Your task to perform on an android device: turn on data saver in the chrome app Image 0: 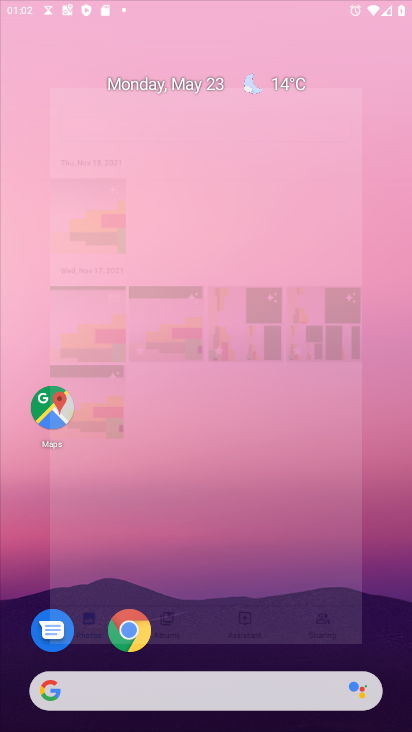
Step 0: drag from (270, 616) to (254, 81)
Your task to perform on an android device: turn on data saver in the chrome app Image 1: 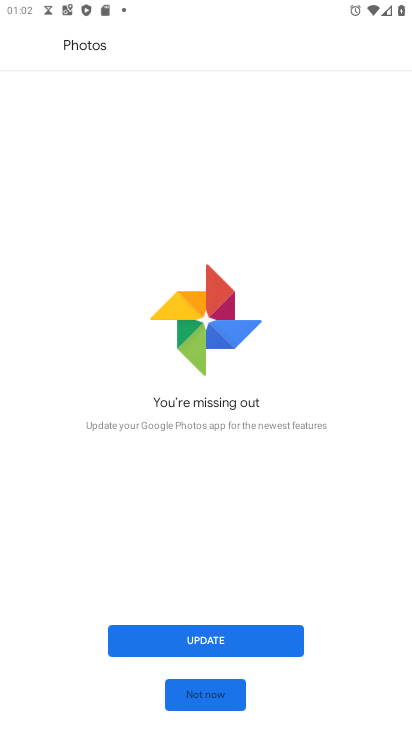
Step 1: press home button
Your task to perform on an android device: turn on data saver in the chrome app Image 2: 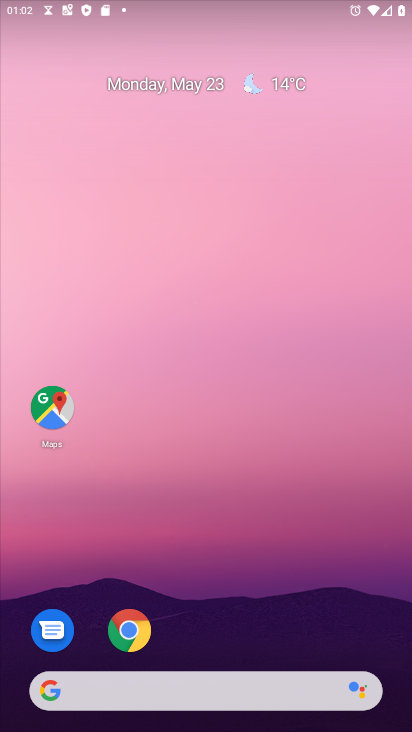
Step 2: click (142, 633)
Your task to perform on an android device: turn on data saver in the chrome app Image 3: 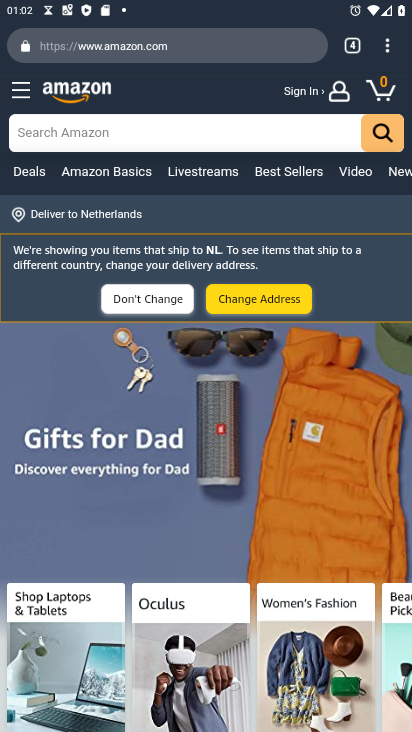
Step 3: click (386, 54)
Your task to perform on an android device: turn on data saver in the chrome app Image 4: 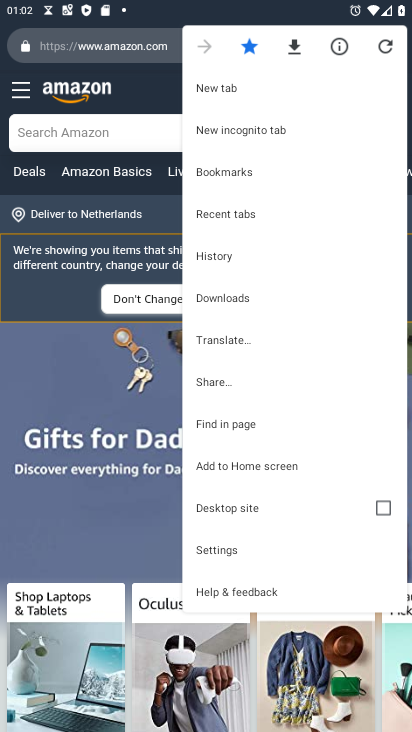
Step 4: click (236, 555)
Your task to perform on an android device: turn on data saver in the chrome app Image 5: 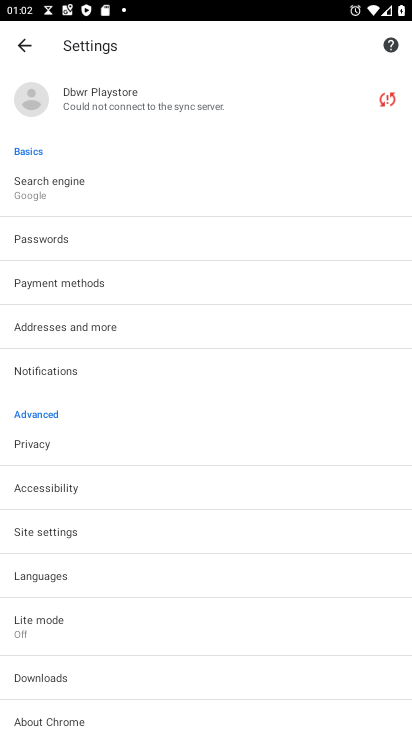
Step 5: click (103, 616)
Your task to perform on an android device: turn on data saver in the chrome app Image 6: 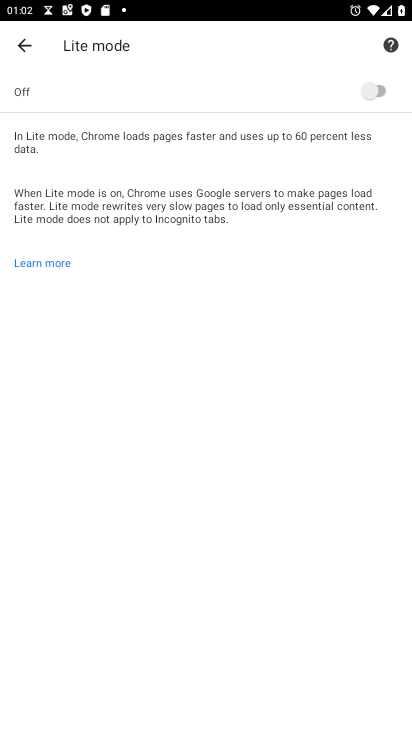
Step 6: click (384, 97)
Your task to perform on an android device: turn on data saver in the chrome app Image 7: 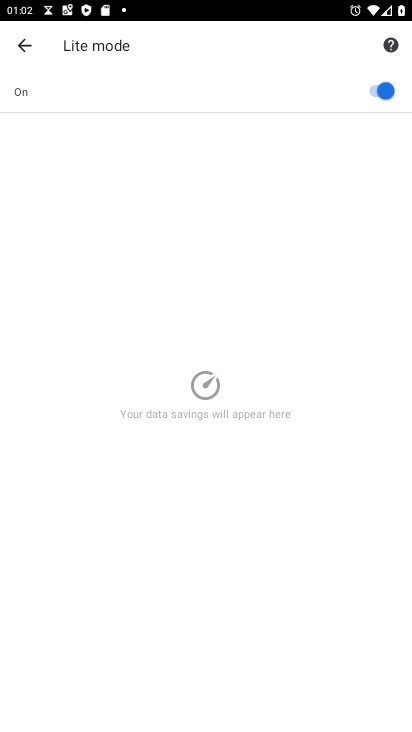
Step 7: task complete